Your task to perform on an android device: What is the recent news? Image 0: 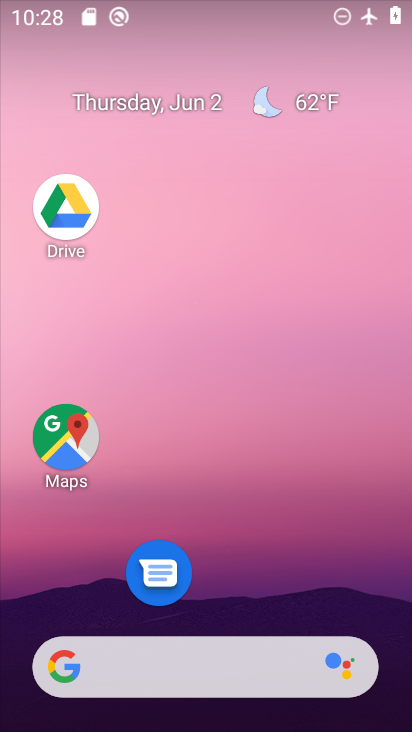
Step 0: click (223, 685)
Your task to perform on an android device: What is the recent news? Image 1: 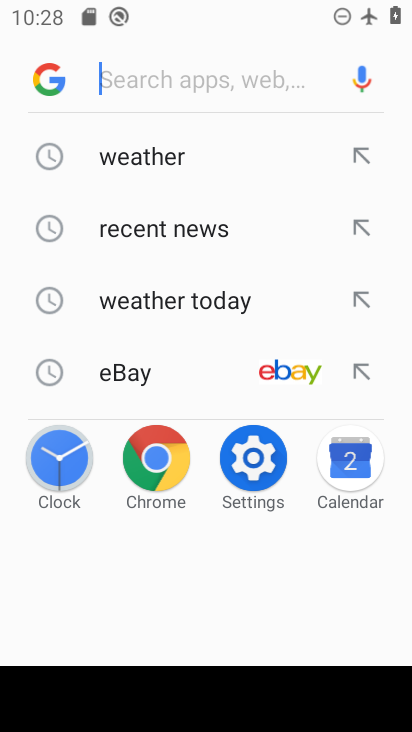
Step 1: click (142, 215)
Your task to perform on an android device: What is the recent news? Image 2: 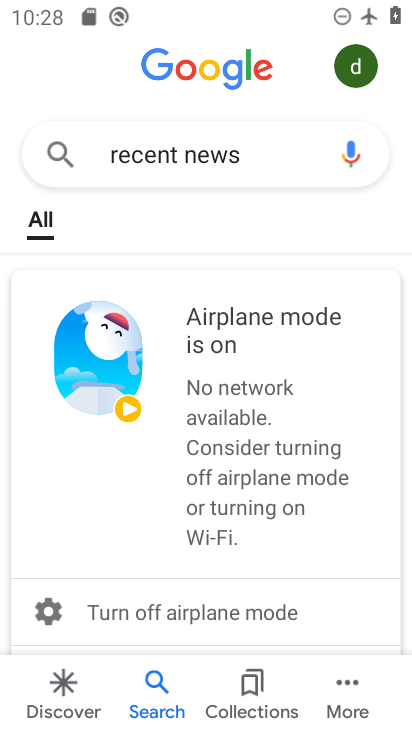
Step 2: task complete